Your task to perform on an android device: Open Chrome and go to the settings page Image 0: 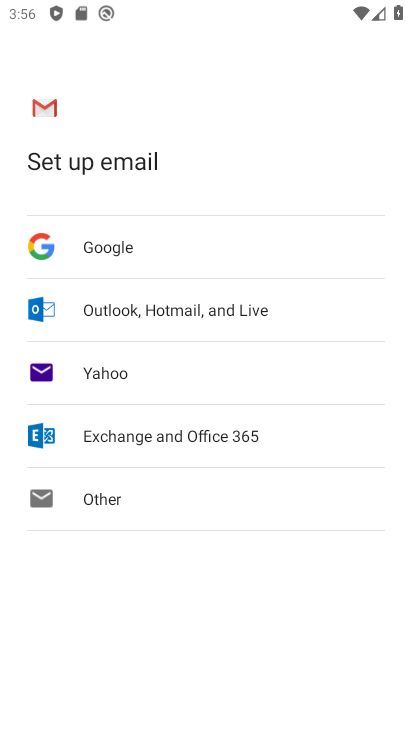
Step 0: press home button
Your task to perform on an android device: Open Chrome and go to the settings page Image 1: 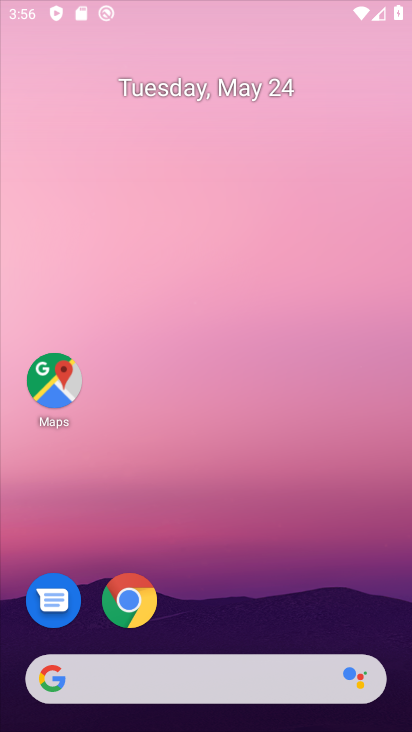
Step 1: drag from (211, 644) to (347, 16)
Your task to perform on an android device: Open Chrome and go to the settings page Image 2: 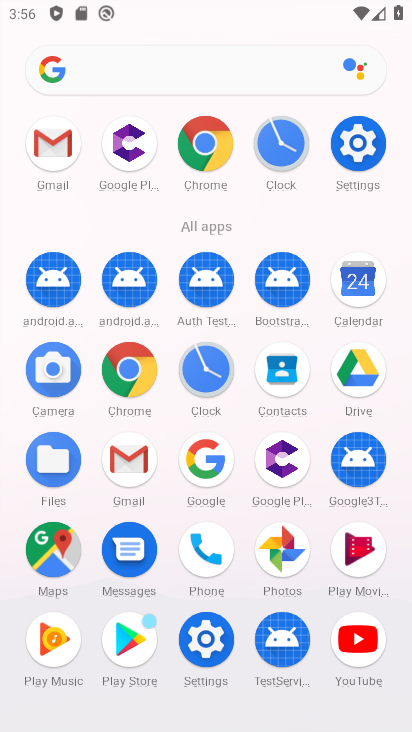
Step 2: click (104, 385)
Your task to perform on an android device: Open Chrome and go to the settings page Image 3: 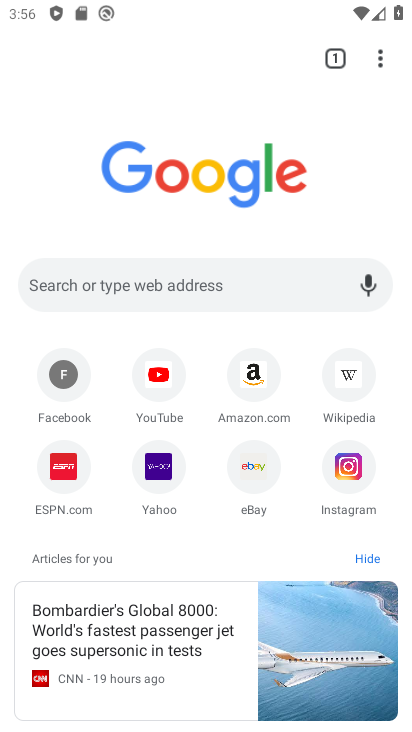
Step 3: task complete